Your task to perform on an android device: open app "Microsoft Outlook" (install if not already installed) Image 0: 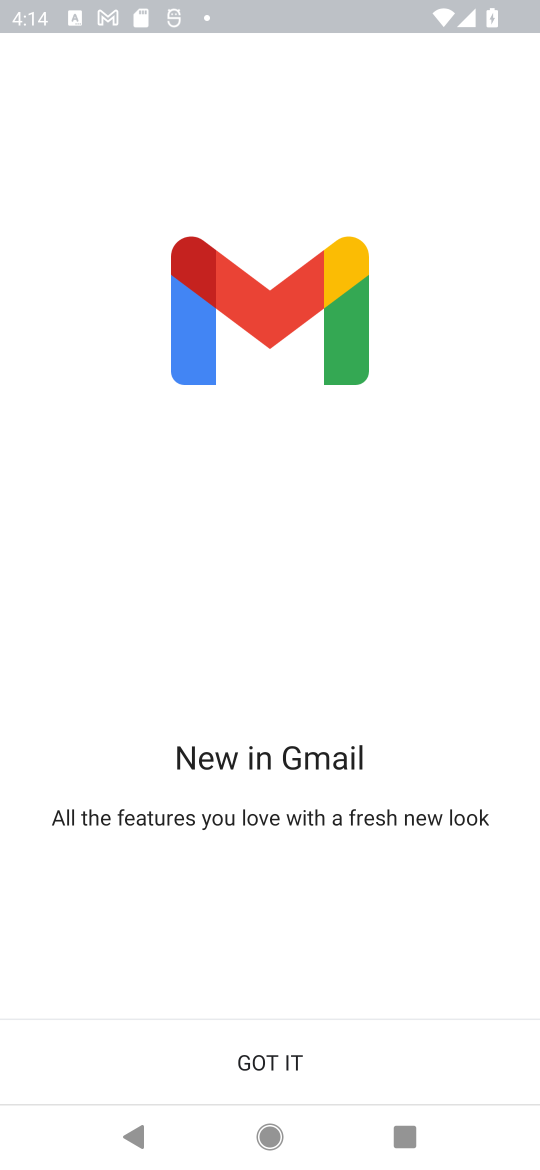
Step 0: press home button
Your task to perform on an android device: open app "Microsoft Outlook" (install if not already installed) Image 1: 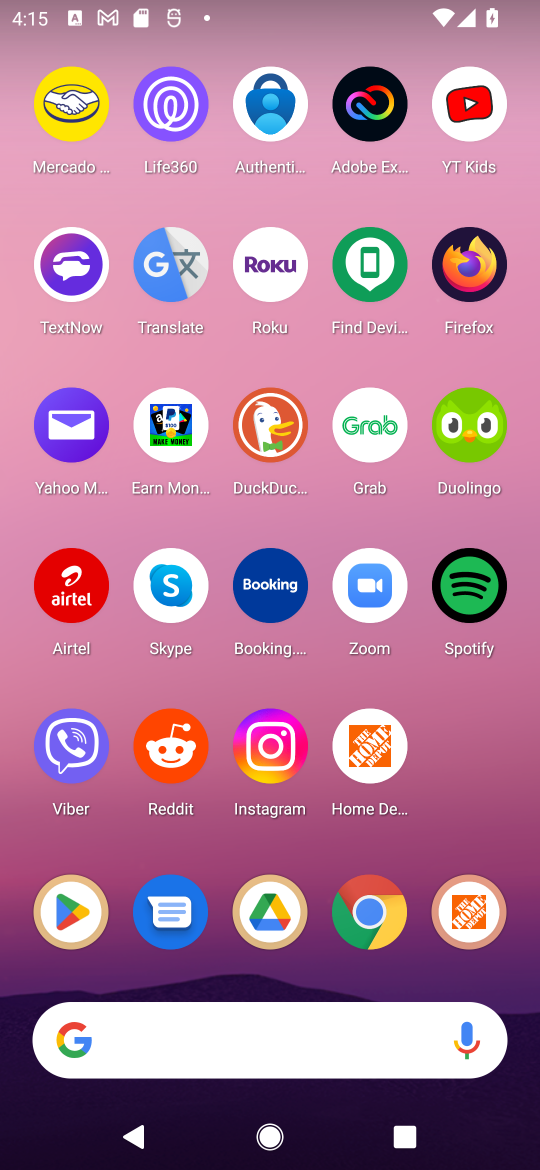
Step 1: click (70, 927)
Your task to perform on an android device: open app "Microsoft Outlook" (install if not already installed) Image 2: 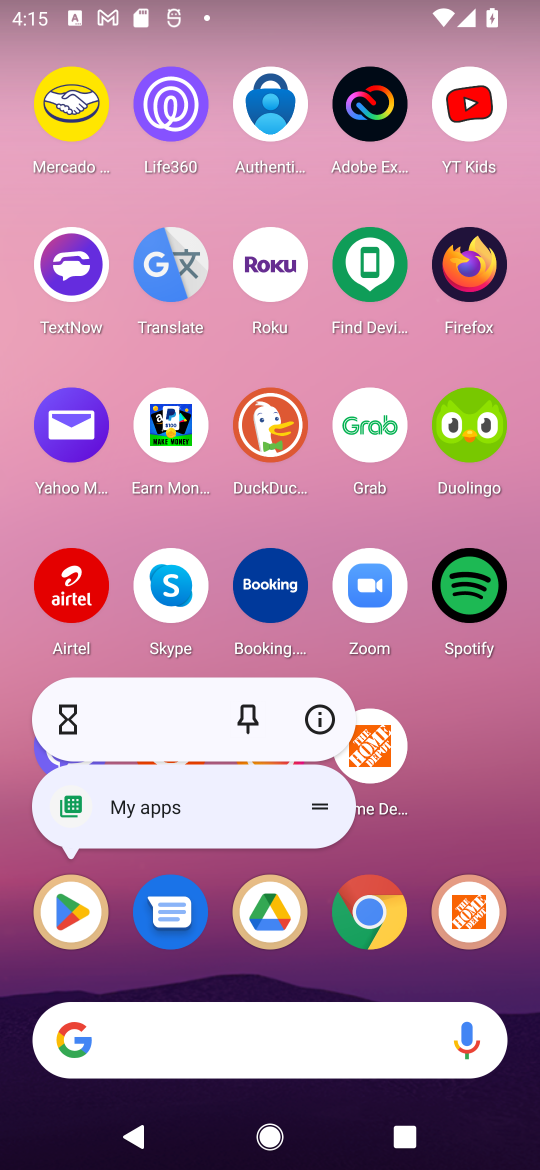
Step 2: click (68, 888)
Your task to perform on an android device: open app "Microsoft Outlook" (install if not already installed) Image 3: 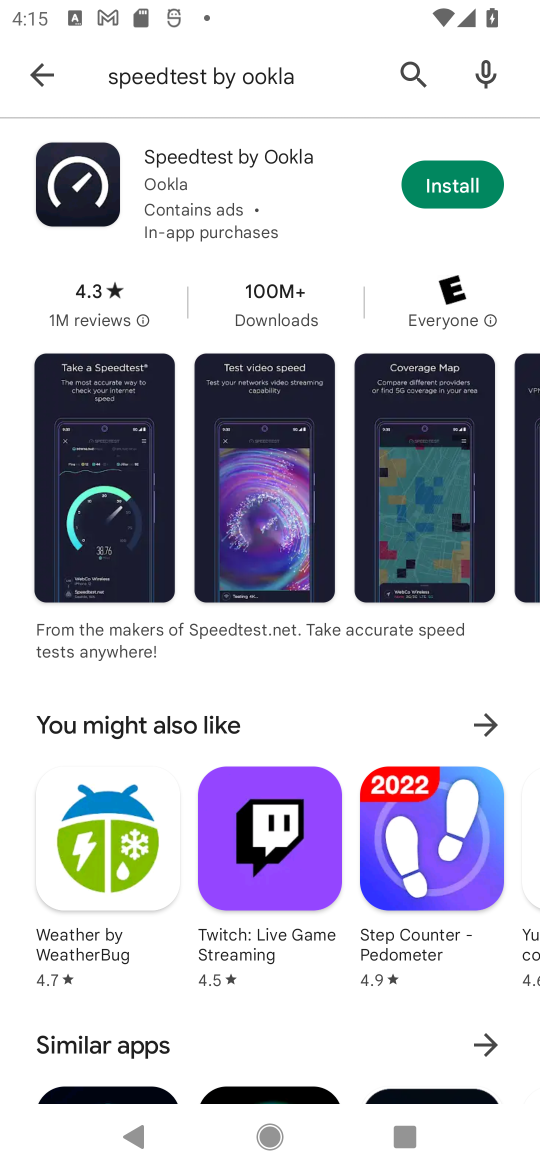
Step 3: click (408, 62)
Your task to perform on an android device: open app "Microsoft Outlook" (install if not already installed) Image 4: 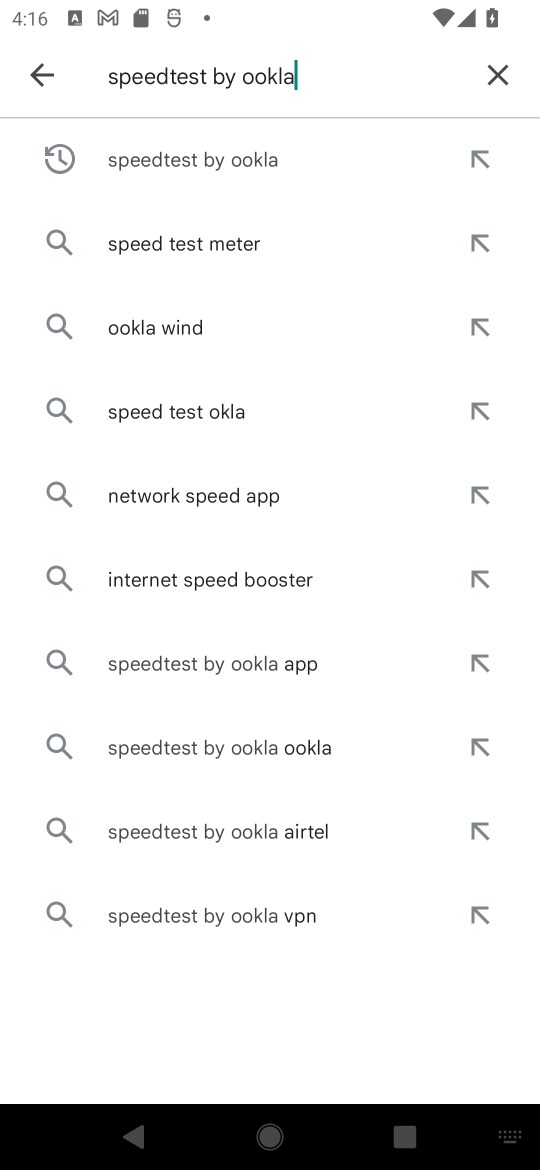
Step 4: click (494, 85)
Your task to perform on an android device: open app "Microsoft Outlook" (install if not already installed) Image 5: 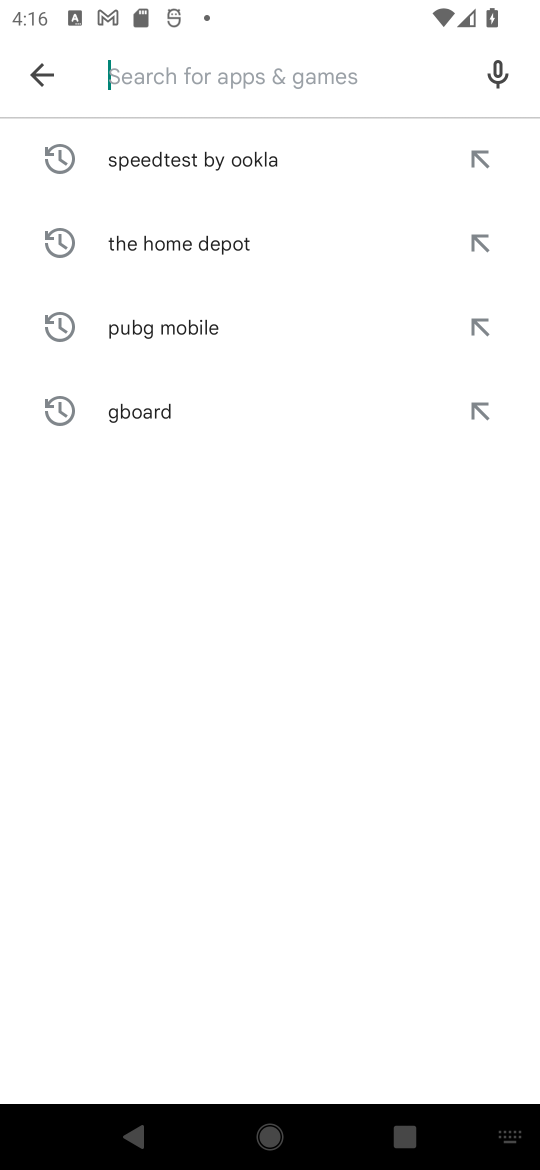
Step 5: type "Microsoft Outlook"
Your task to perform on an android device: open app "Microsoft Outlook" (install if not already installed) Image 6: 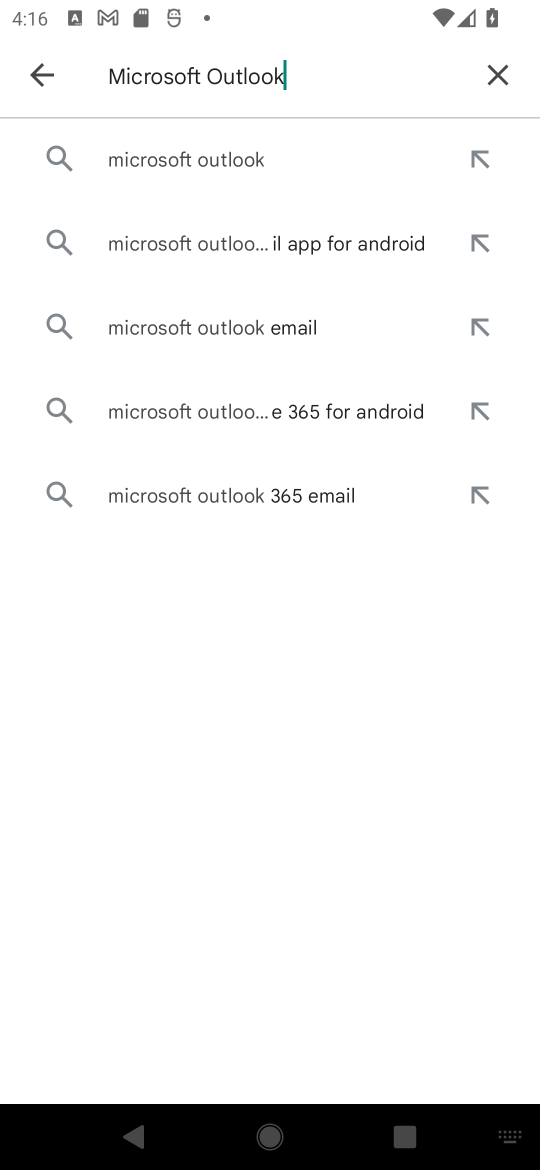
Step 6: click (231, 158)
Your task to perform on an android device: open app "Microsoft Outlook" (install if not already installed) Image 7: 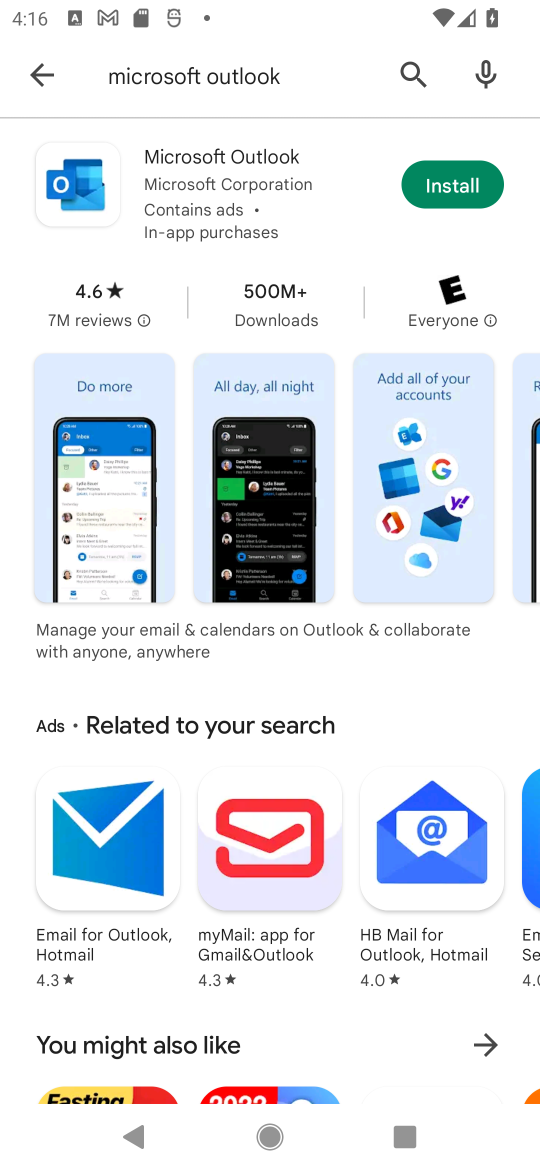
Step 7: click (445, 197)
Your task to perform on an android device: open app "Microsoft Outlook" (install if not already installed) Image 8: 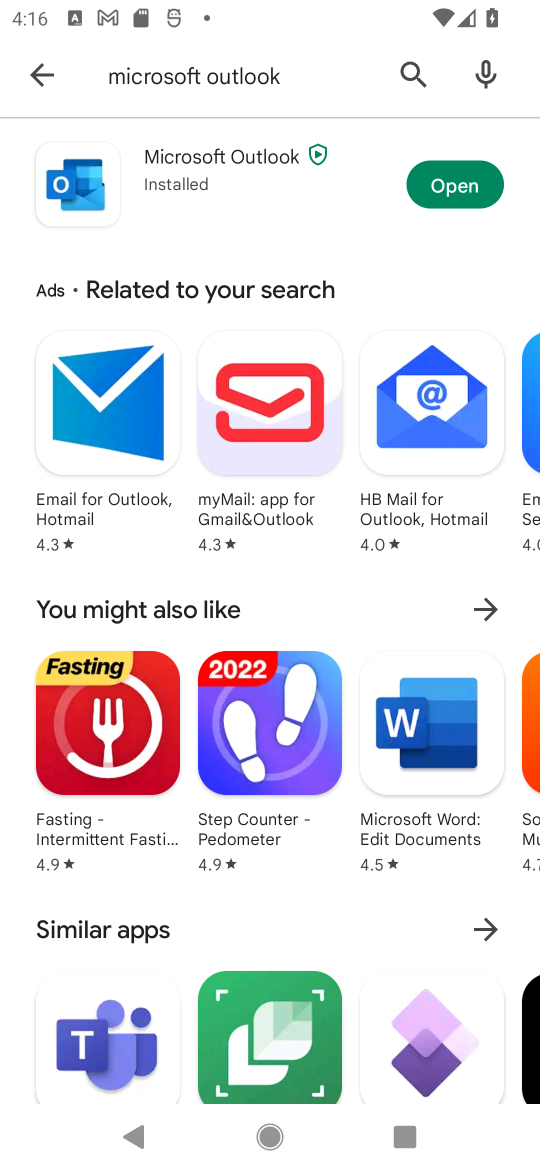
Step 8: click (445, 197)
Your task to perform on an android device: open app "Microsoft Outlook" (install if not already installed) Image 9: 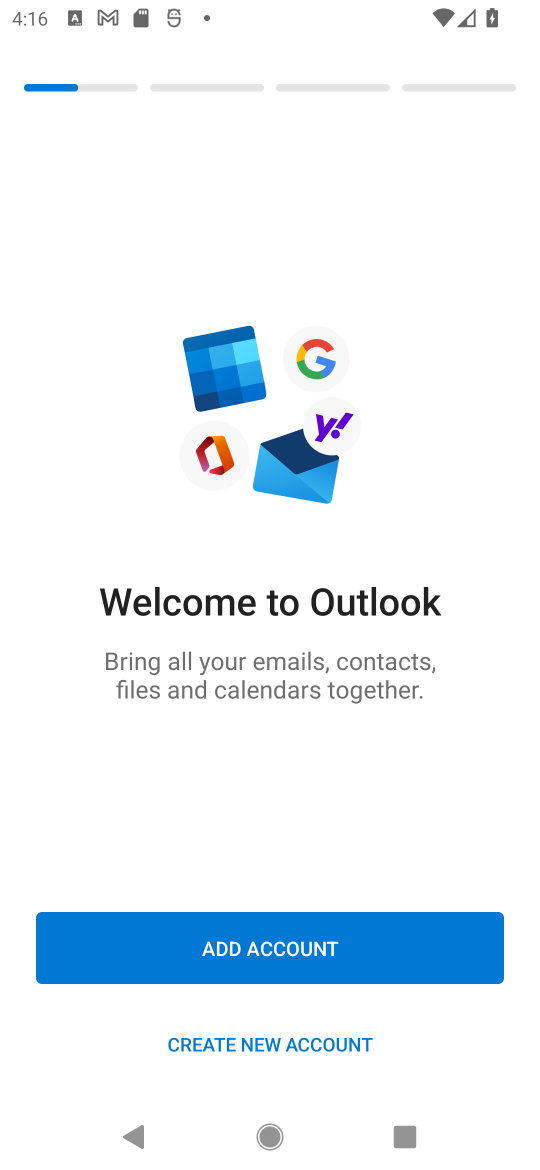
Step 9: task complete